Your task to perform on an android device: What's on my calendar tomorrow? Image 0: 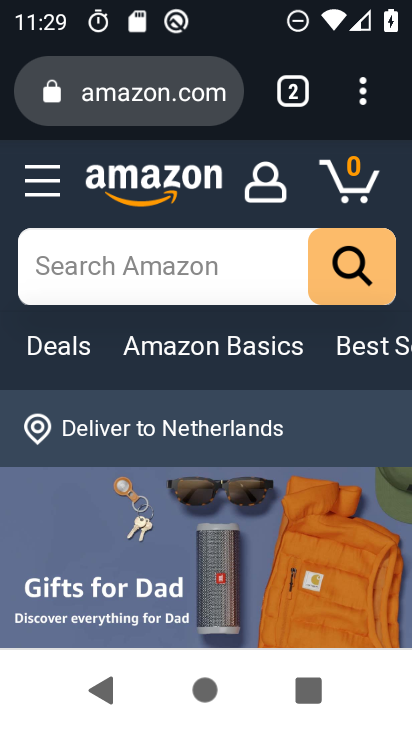
Step 0: press home button
Your task to perform on an android device: What's on my calendar tomorrow? Image 1: 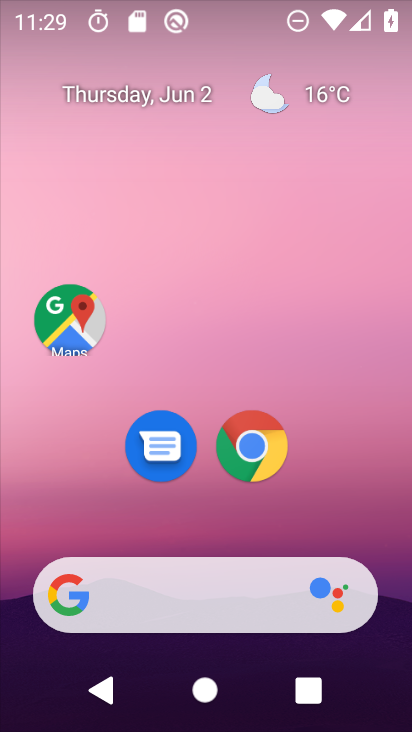
Step 1: drag from (343, 524) to (353, 289)
Your task to perform on an android device: What's on my calendar tomorrow? Image 2: 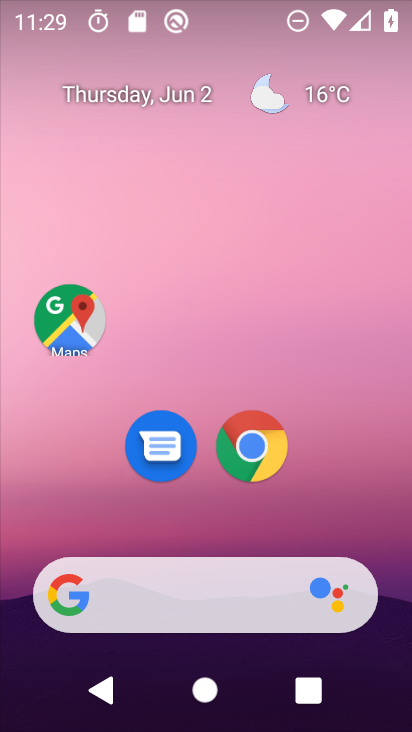
Step 2: drag from (369, 487) to (369, 234)
Your task to perform on an android device: What's on my calendar tomorrow? Image 3: 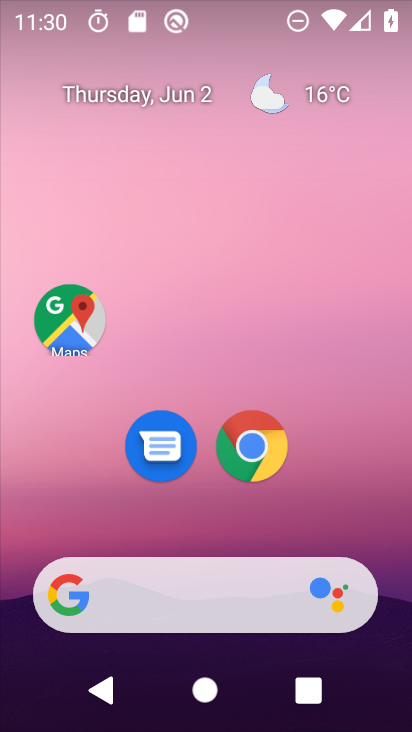
Step 3: drag from (370, 520) to (389, 145)
Your task to perform on an android device: What's on my calendar tomorrow? Image 4: 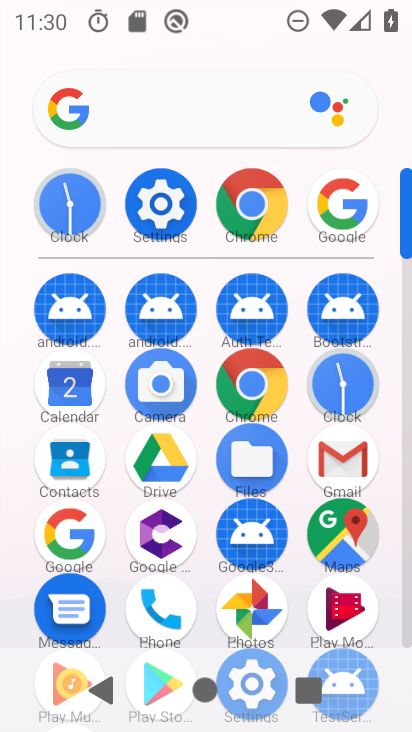
Step 4: click (90, 396)
Your task to perform on an android device: What's on my calendar tomorrow? Image 5: 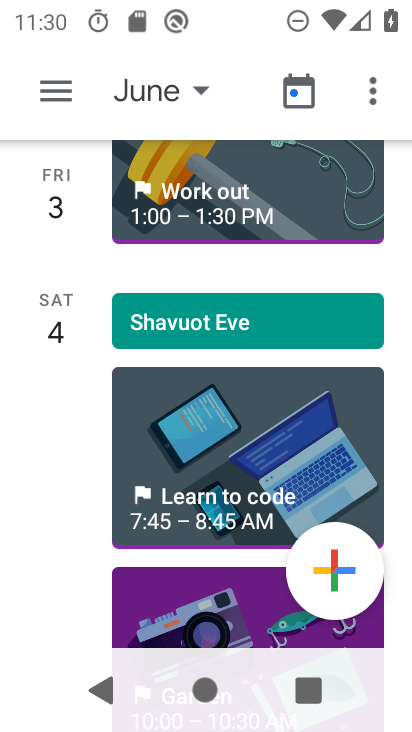
Step 5: click (216, 466)
Your task to perform on an android device: What's on my calendar tomorrow? Image 6: 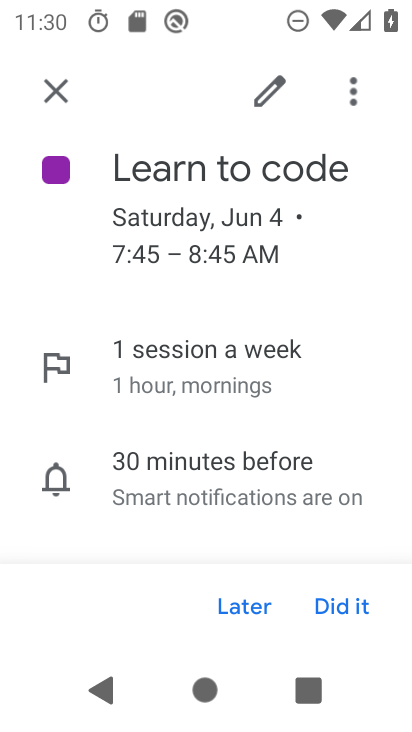
Step 6: task complete